Your task to perform on an android device: see creations saved in the google photos Image 0: 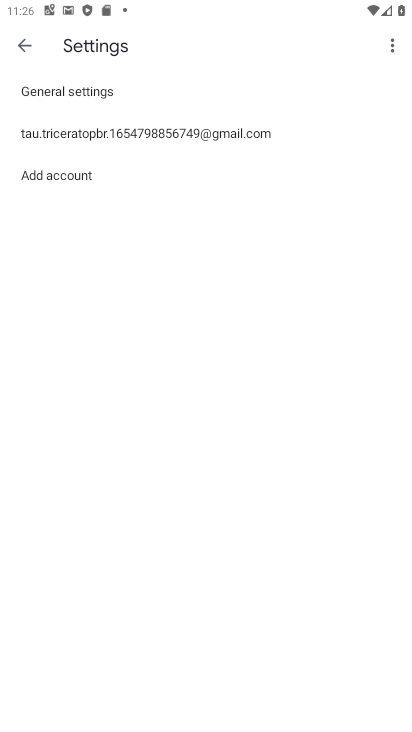
Step 0: press home button
Your task to perform on an android device: see creations saved in the google photos Image 1: 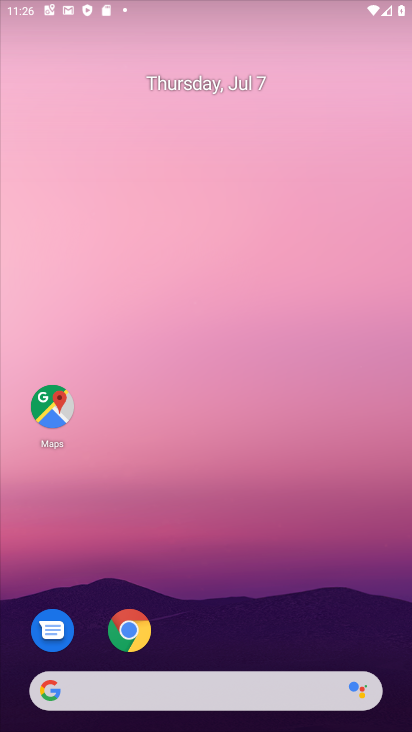
Step 1: drag from (219, 619) to (195, 213)
Your task to perform on an android device: see creations saved in the google photos Image 2: 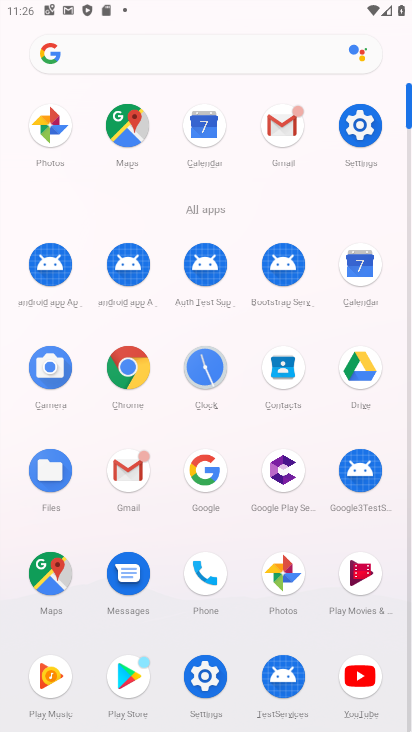
Step 2: click (44, 147)
Your task to perform on an android device: see creations saved in the google photos Image 3: 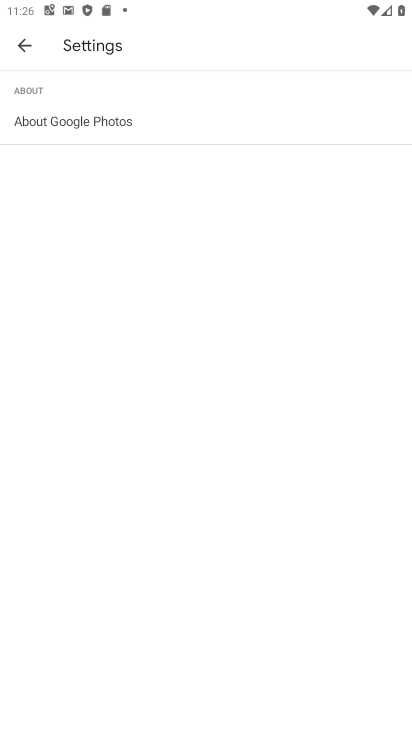
Step 3: click (33, 39)
Your task to perform on an android device: see creations saved in the google photos Image 4: 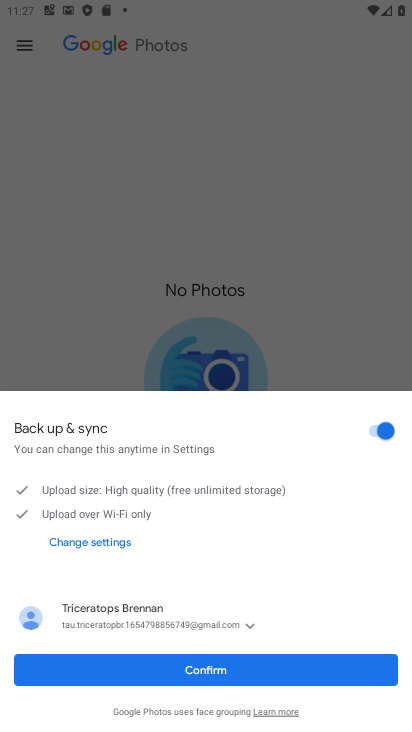
Step 4: click (259, 667)
Your task to perform on an android device: see creations saved in the google photos Image 5: 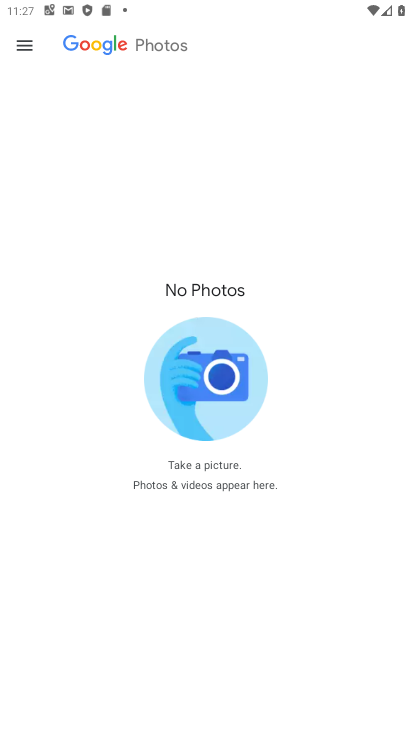
Step 5: click (188, 46)
Your task to perform on an android device: see creations saved in the google photos Image 6: 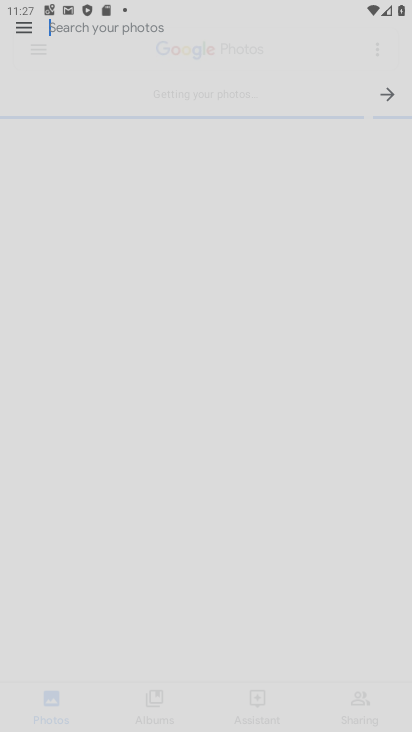
Step 6: click (188, 46)
Your task to perform on an android device: see creations saved in the google photos Image 7: 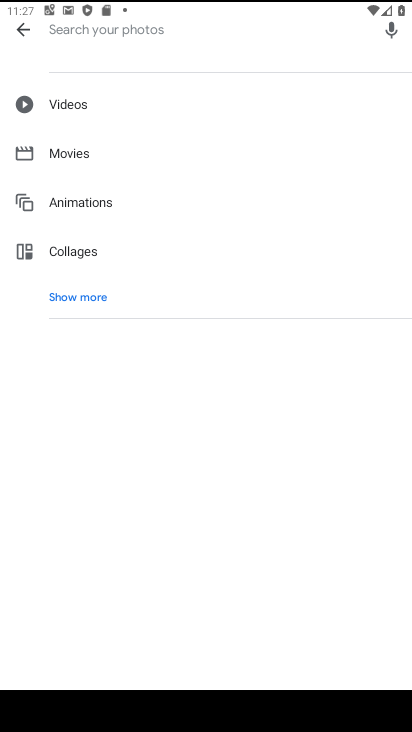
Step 7: click (81, 295)
Your task to perform on an android device: see creations saved in the google photos Image 8: 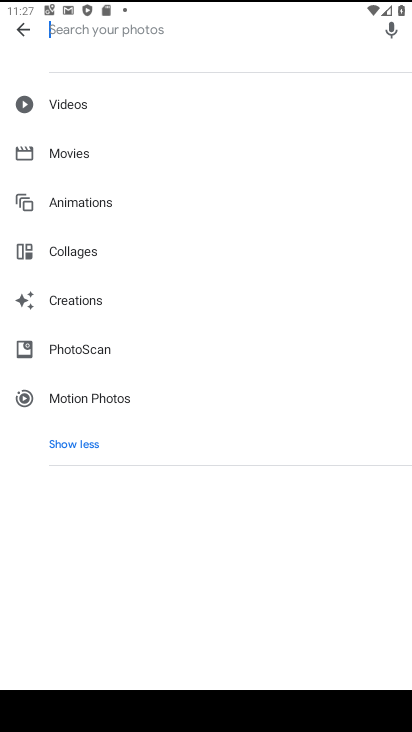
Step 8: click (81, 295)
Your task to perform on an android device: see creations saved in the google photos Image 9: 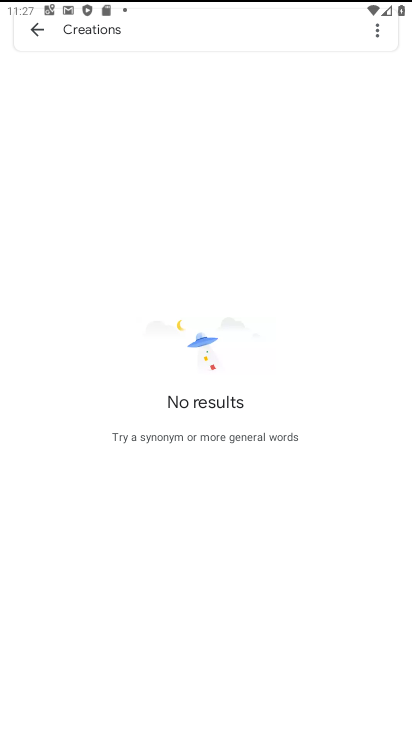
Step 9: task complete